Your task to perform on an android device: What's the weather? Image 0: 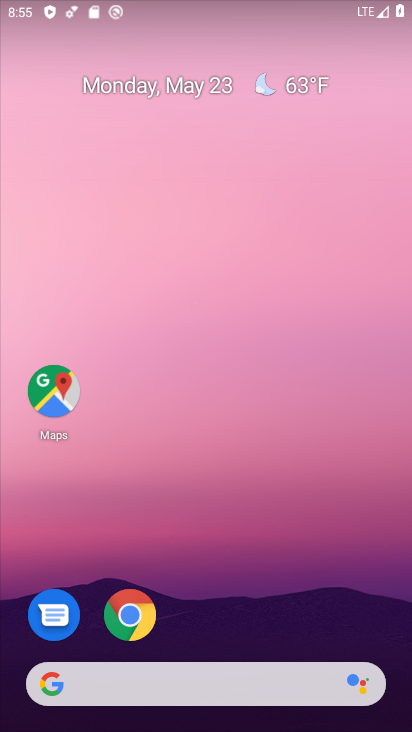
Step 0: drag from (255, 494) to (265, 86)
Your task to perform on an android device: What's the weather? Image 1: 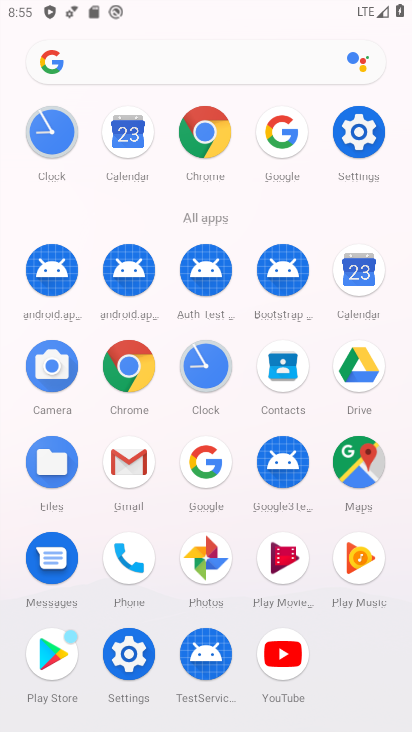
Step 1: click (194, 458)
Your task to perform on an android device: What's the weather? Image 2: 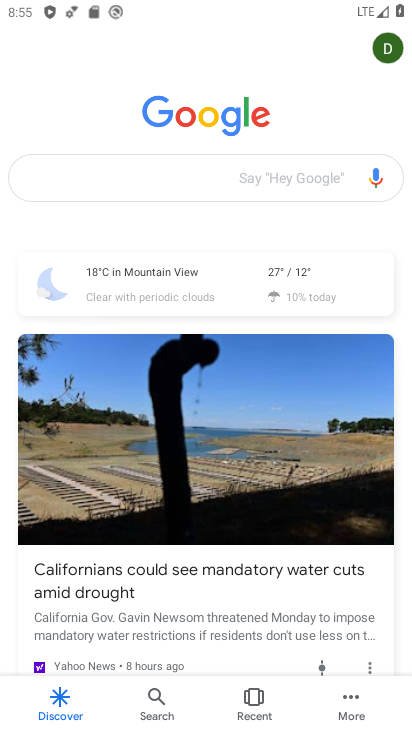
Step 2: click (176, 168)
Your task to perform on an android device: What's the weather? Image 3: 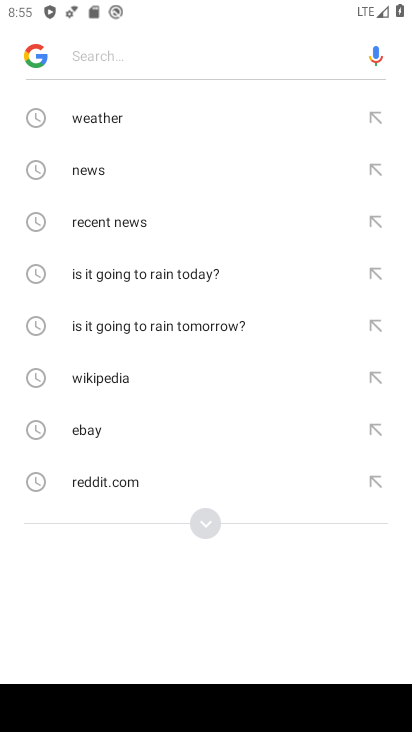
Step 3: click (118, 122)
Your task to perform on an android device: What's the weather? Image 4: 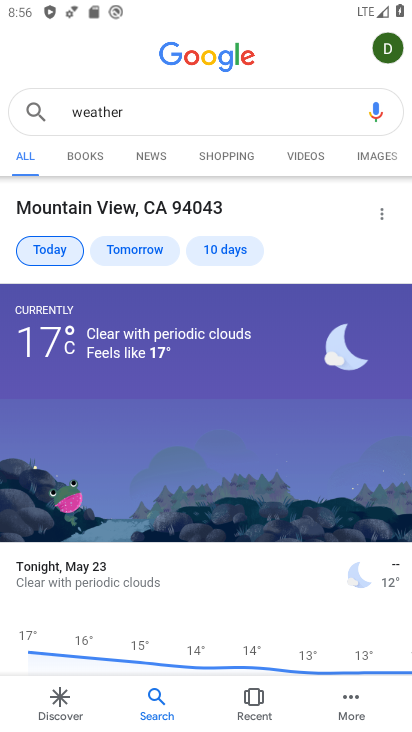
Step 4: task complete